Your task to perform on an android device: add a contact Image 0: 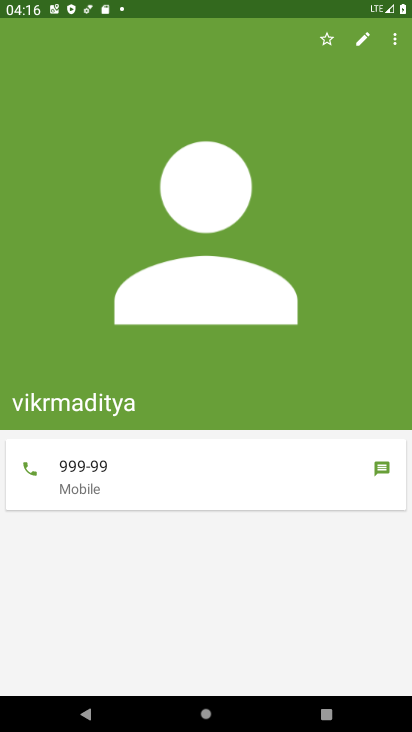
Step 0: press home button
Your task to perform on an android device: add a contact Image 1: 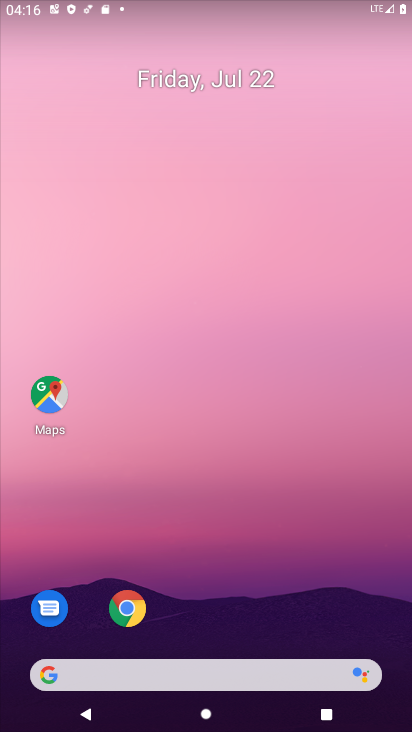
Step 1: drag from (238, 691) to (276, 103)
Your task to perform on an android device: add a contact Image 2: 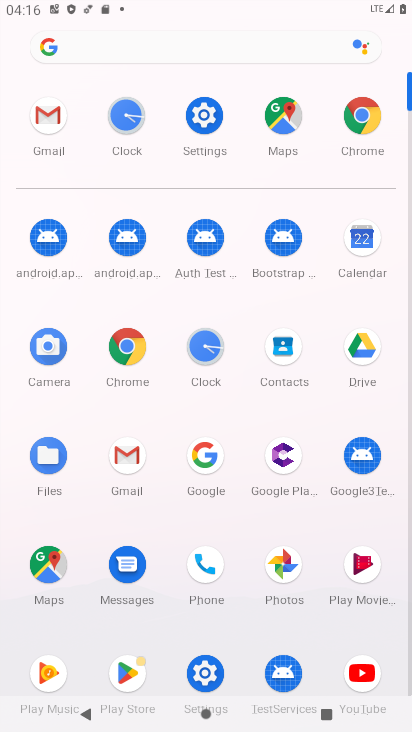
Step 2: click (279, 351)
Your task to perform on an android device: add a contact Image 3: 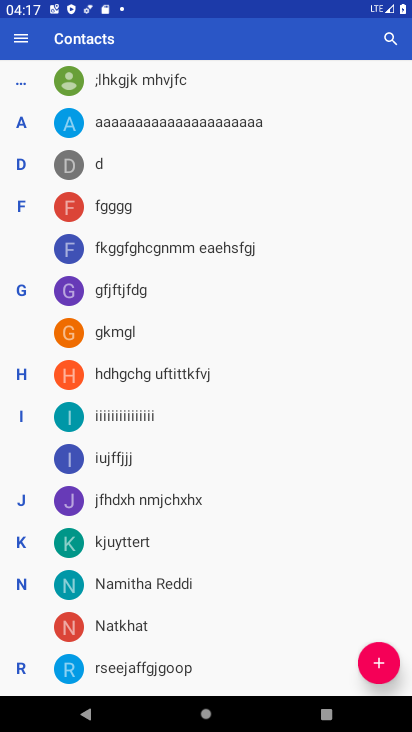
Step 3: click (365, 667)
Your task to perform on an android device: add a contact Image 4: 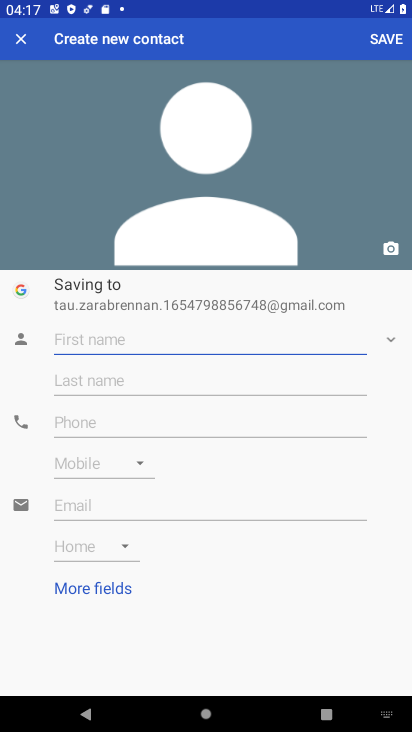
Step 4: type "nnn"
Your task to perform on an android device: add a contact Image 5: 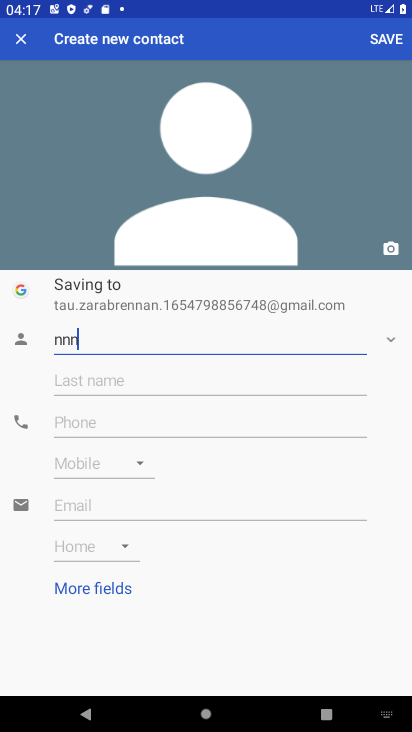
Step 5: type ""
Your task to perform on an android device: add a contact Image 6: 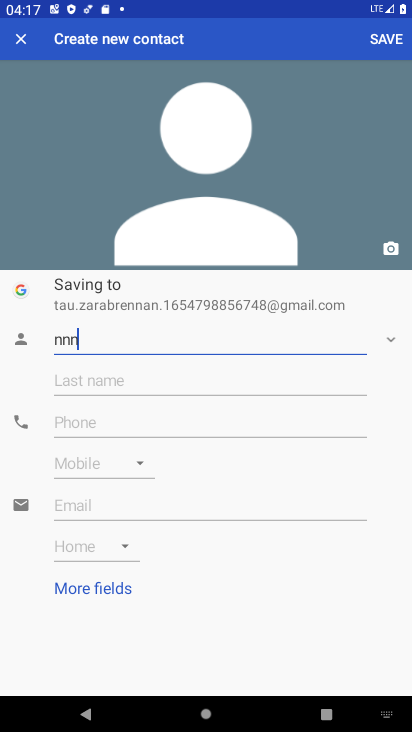
Step 6: click (60, 421)
Your task to perform on an android device: add a contact Image 7: 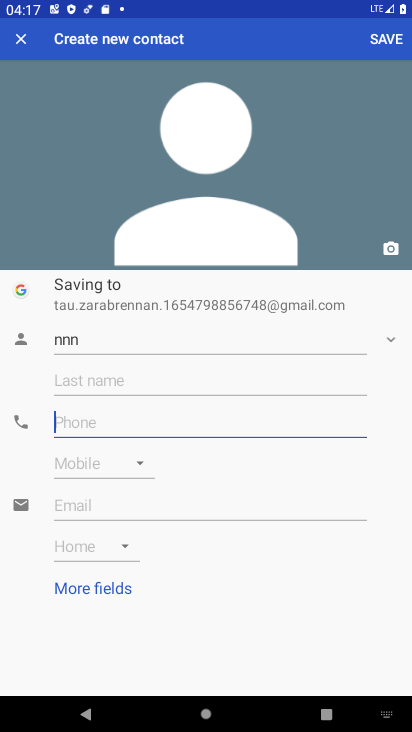
Step 7: type "8787878787"
Your task to perform on an android device: add a contact Image 8: 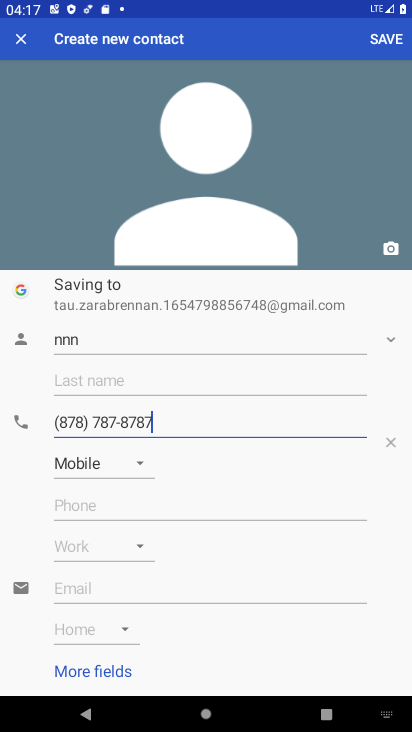
Step 8: type ""
Your task to perform on an android device: add a contact Image 9: 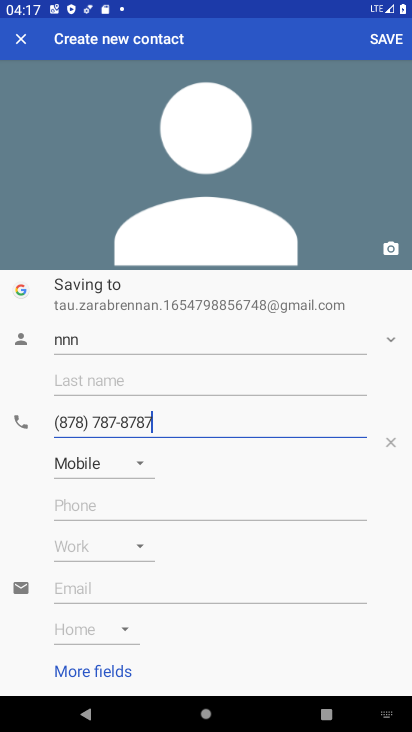
Step 9: click (392, 36)
Your task to perform on an android device: add a contact Image 10: 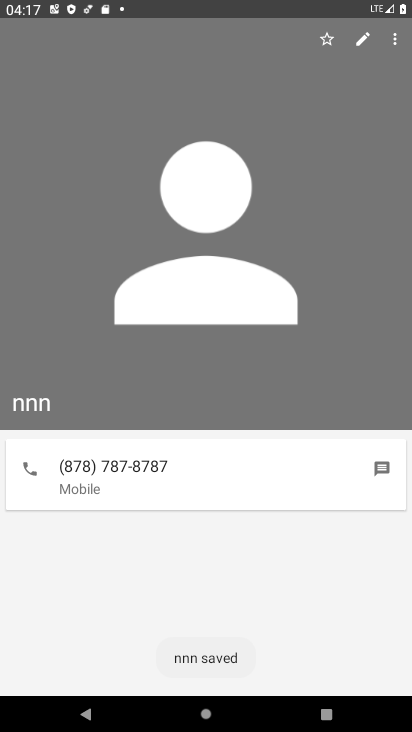
Step 10: task complete